Your task to perform on an android device: Open location settings Image 0: 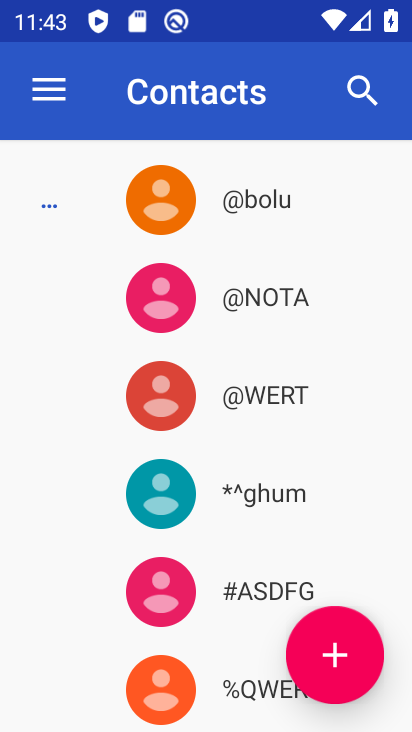
Step 0: press home button
Your task to perform on an android device: Open location settings Image 1: 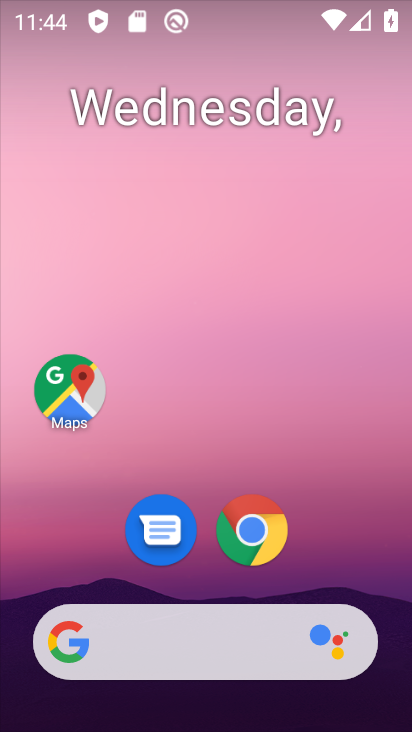
Step 1: drag from (240, 620) to (250, 147)
Your task to perform on an android device: Open location settings Image 2: 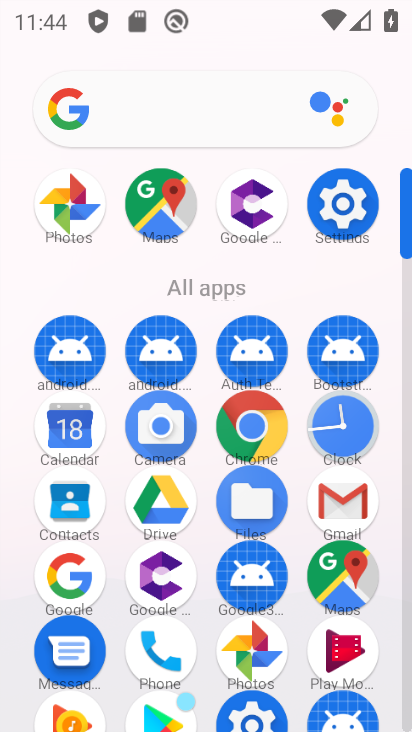
Step 2: click (324, 220)
Your task to perform on an android device: Open location settings Image 3: 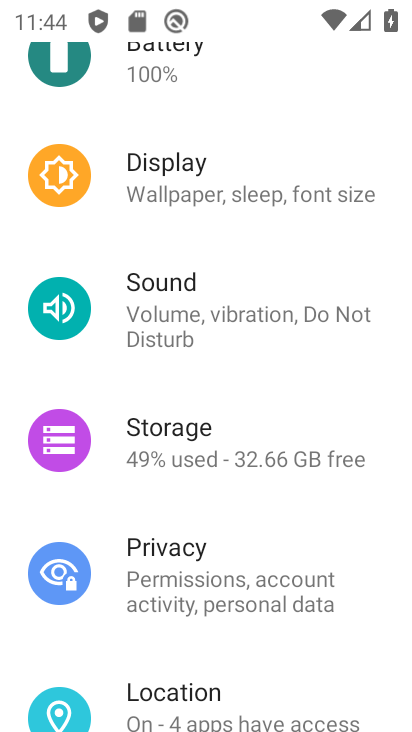
Step 3: click (184, 685)
Your task to perform on an android device: Open location settings Image 4: 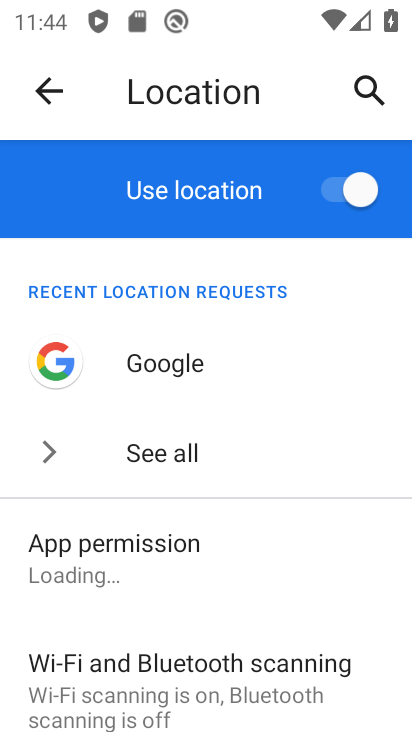
Step 4: task complete